Your task to perform on an android device: delete a single message in the gmail app Image 0: 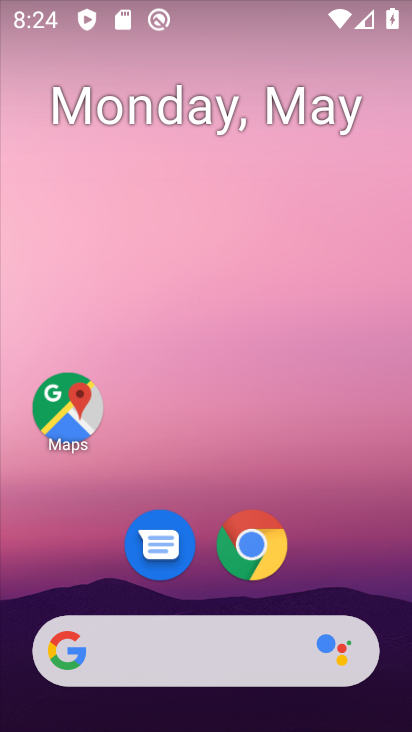
Step 0: drag from (217, 541) to (274, 189)
Your task to perform on an android device: delete a single message in the gmail app Image 1: 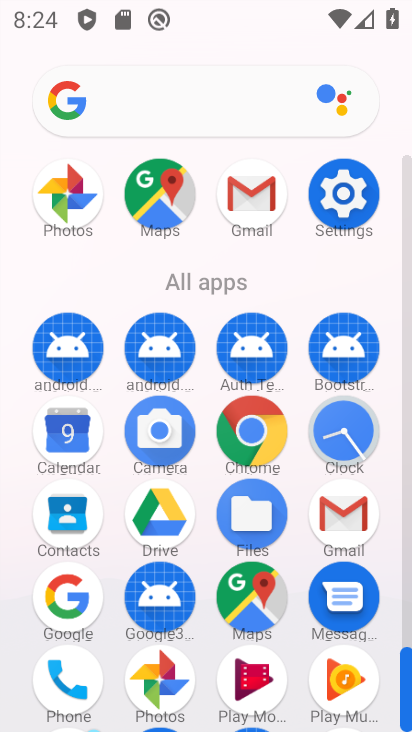
Step 1: click (274, 189)
Your task to perform on an android device: delete a single message in the gmail app Image 2: 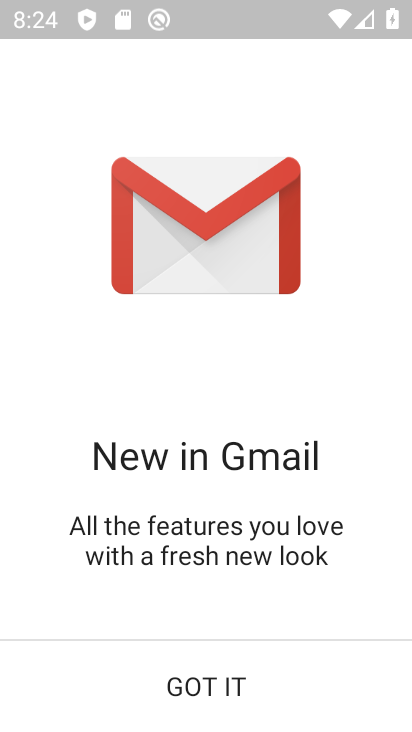
Step 2: click (214, 673)
Your task to perform on an android device: delete a single message in the gmail app Image 3: 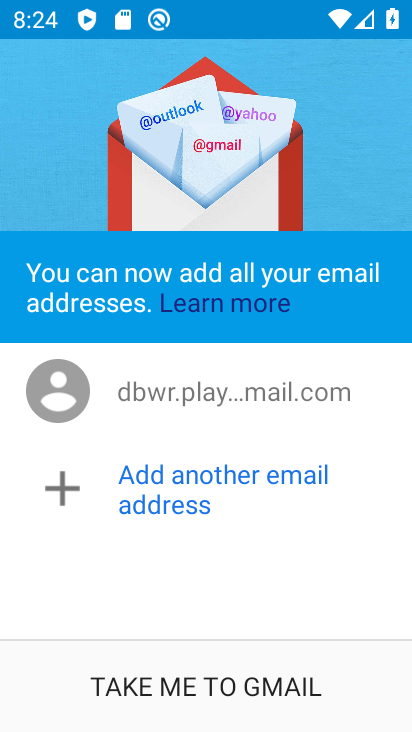
Step 3: click (214, 673)
Your task to perform on an android device: delete a single message in the gmail app Image 4: 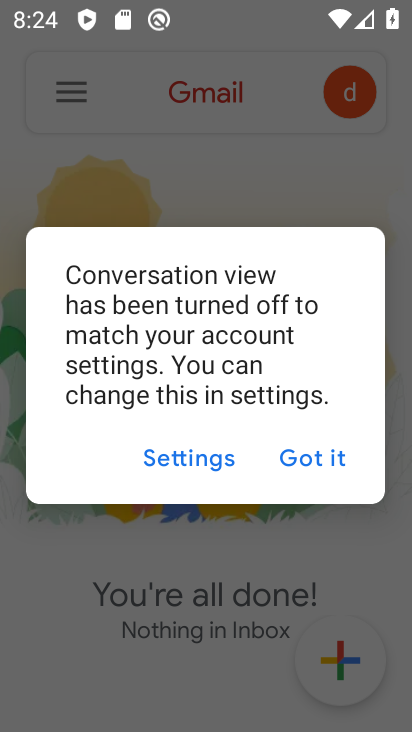
Step 4: click (323, 454)
Your task to perform on an android device: delete a single message in the gmail app Image 5: 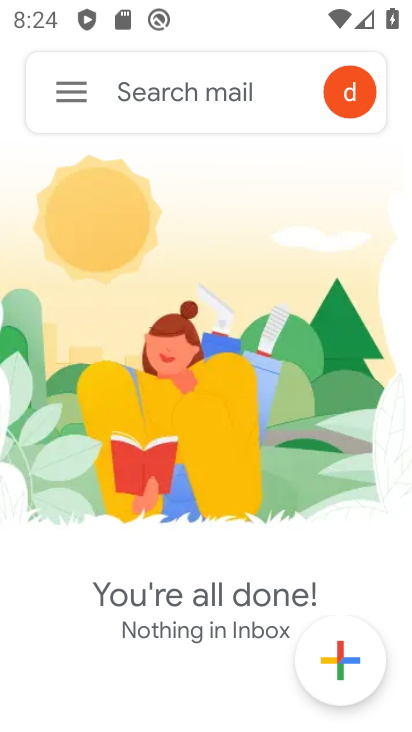
Step 5: task complete